Your task to perform on an android device: turn off notifications settings in the gmail app Image 0: 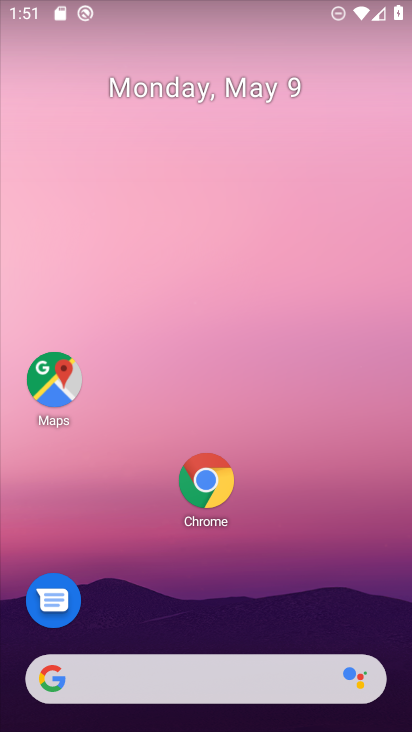
Step 0: drag from (215, 661) to (337, 170)
Your task to perform on an android device: turn off notifications settings in the gmail app Image 1: 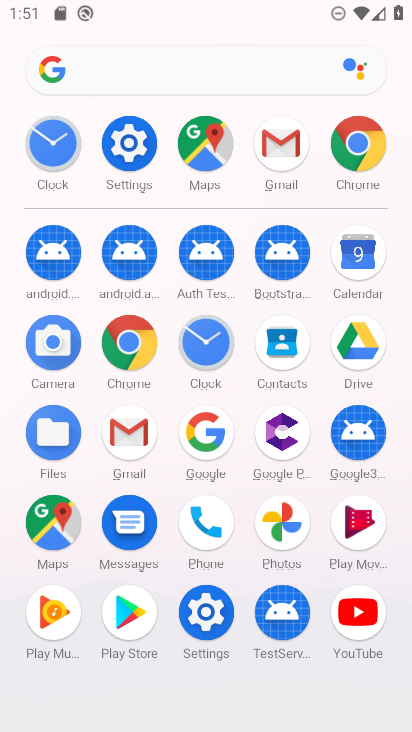
Step 1: click (274, 148)
Your task to perform on an android device: turn off notifications settings in the gmail app Image 2: 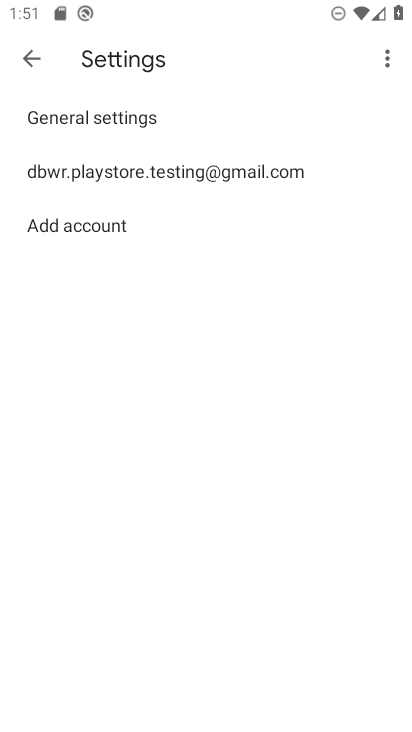
Step 2: click (240, 173)
Your task to perform on an android device: turn off notifications settings in the gmail app Image 3: 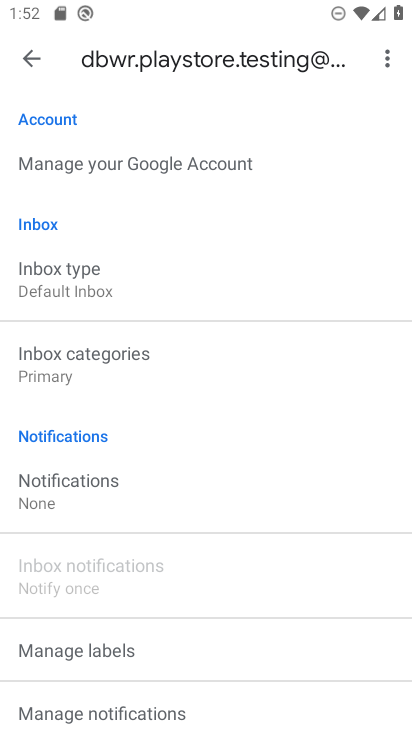
Step 3: click (83, 491)
Your task to perform on an android device: turn off notifications settings in the gmail app Image 4: 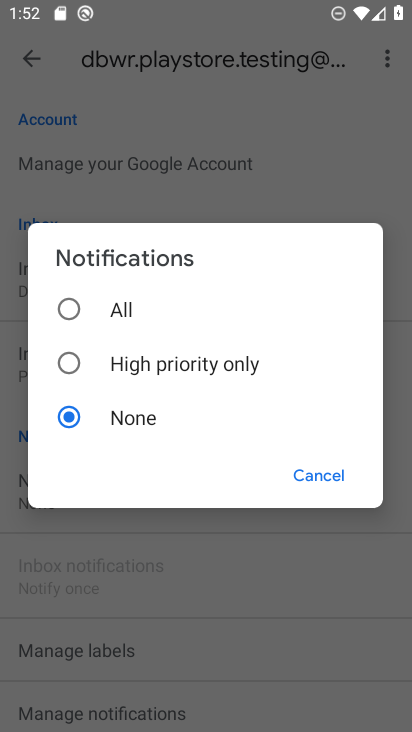
Step 4: task complete